Your task to perform on an android device: toggle show notifications on the lock screen Image 0: 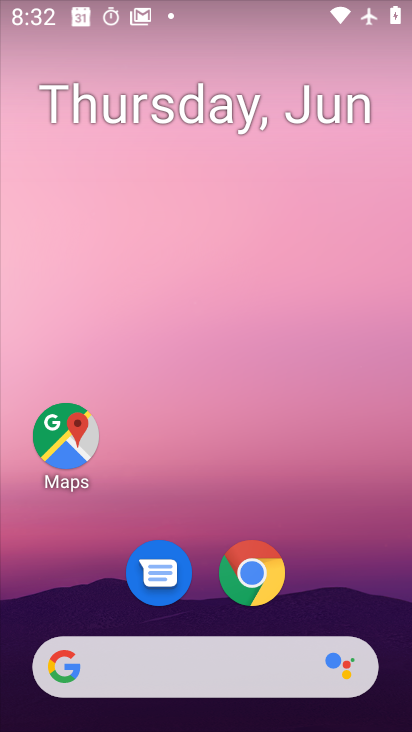
Step 0: drag from (326, 531) to (326, 282)
Your task to perform on an android device: toggle show notifications on the lock screen Image 1: 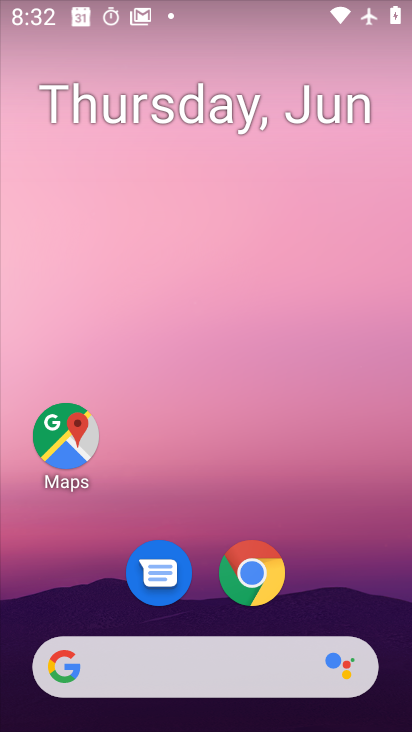
Step 1: drag from (330, 594) to (272, 234)
Your task to perform on an android device: toggle show notifications on the lock screen Image 2: 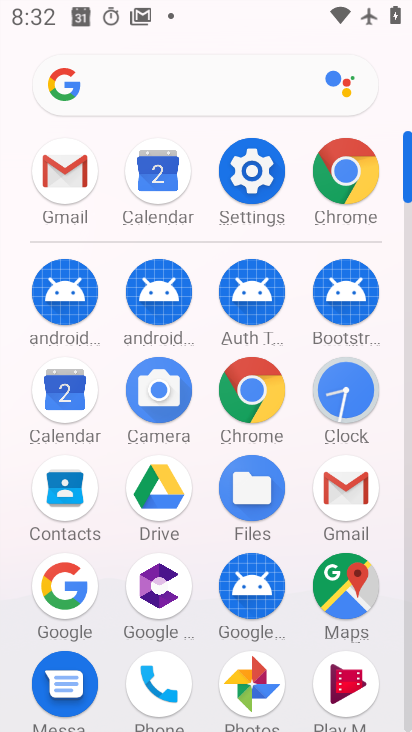
Step 2: click (232, 154)
Your task to perform on an android device: toggle show notifications on the lock screen Image 3: 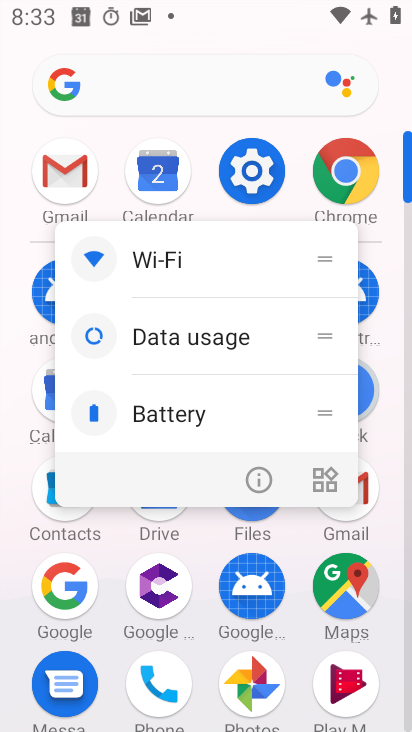
Step 3: click (246, 170)
Your task to perform on an android device: toggle show notifications on the lock screen Image 4: 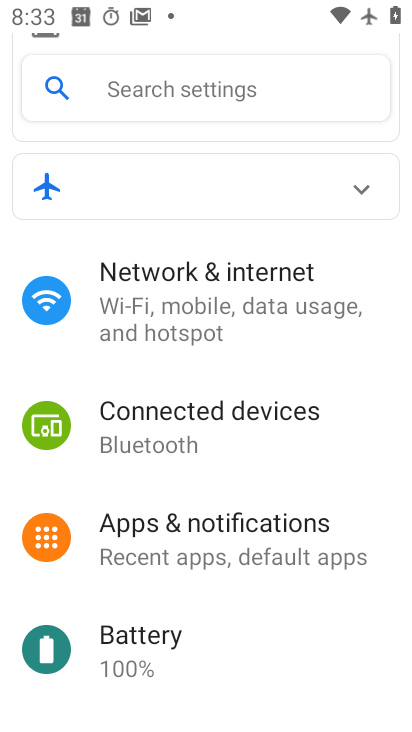
Step 4: click (251, 540)
Your task to perform on an android device: toggle show notifications on the lock screen Image 5: 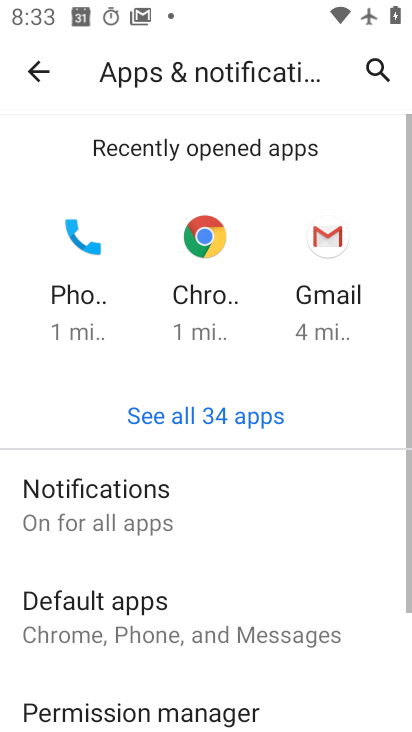
Step 5: click (250, 539)
Your task to perform on an android device: toggle show notifications on the lock screen Image 6: 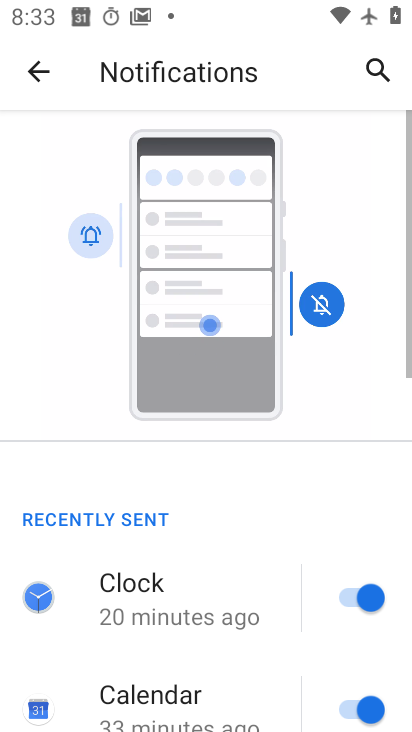
Step 6: drag from (163, 585) to (175, 267)
Your task to perform on an android device: toggle show notifications on the lock screen Image 7: 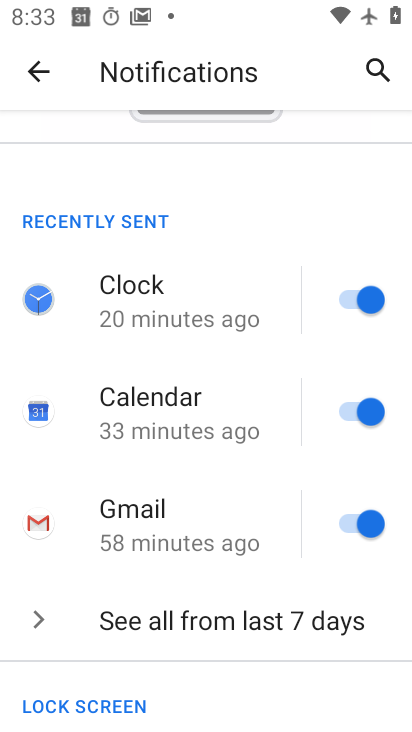
Step 7: drag from (144, 674) to (202, 296)
Your task to perform on an android device: toggle show notifications on the lock screen Image 8: 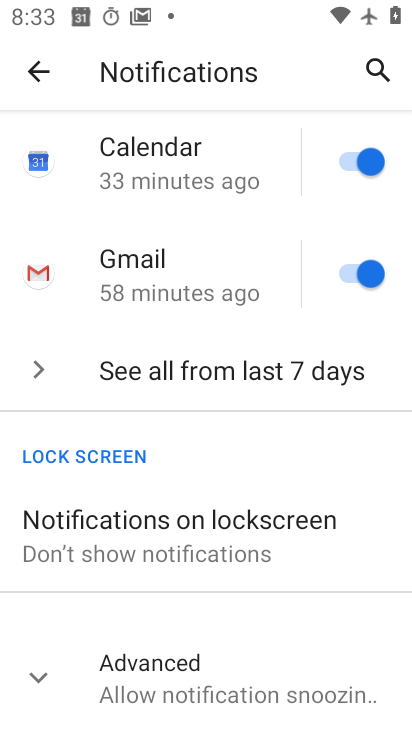
Step 8: click (221, 566)
Your task to perform on an android device: toggle show notifications on the lock screen Image 9: 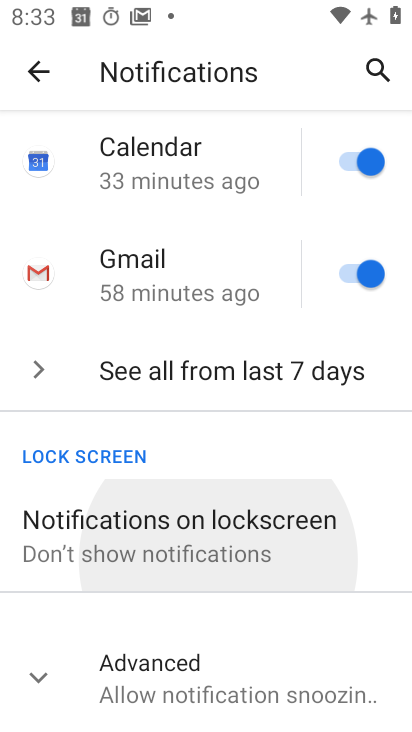
Step 9: click (217, 552)
Your task to perform on an android device: toggle show notifications on the lock screen Image 10: 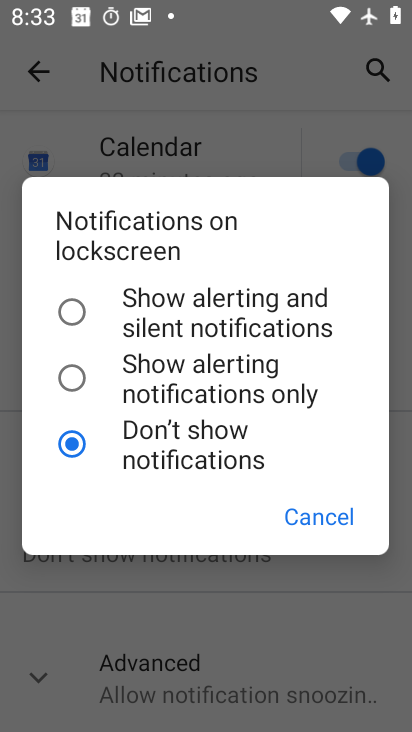
Step 10: click (162, 292)
Your task to perform on an android device: toggle show notifications on the lock screen Image 11: 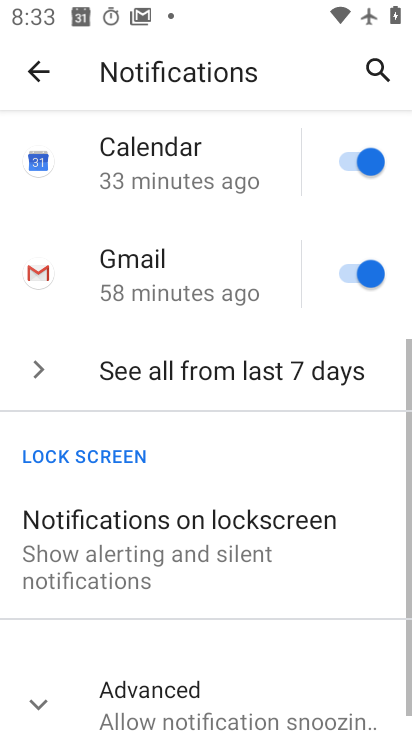
Step 11: task complete